Your task to perform on an android device: Clear the cart on amazon.com. Add "usb-c" to the cart on amazon.com, then select checkout. Image 0: 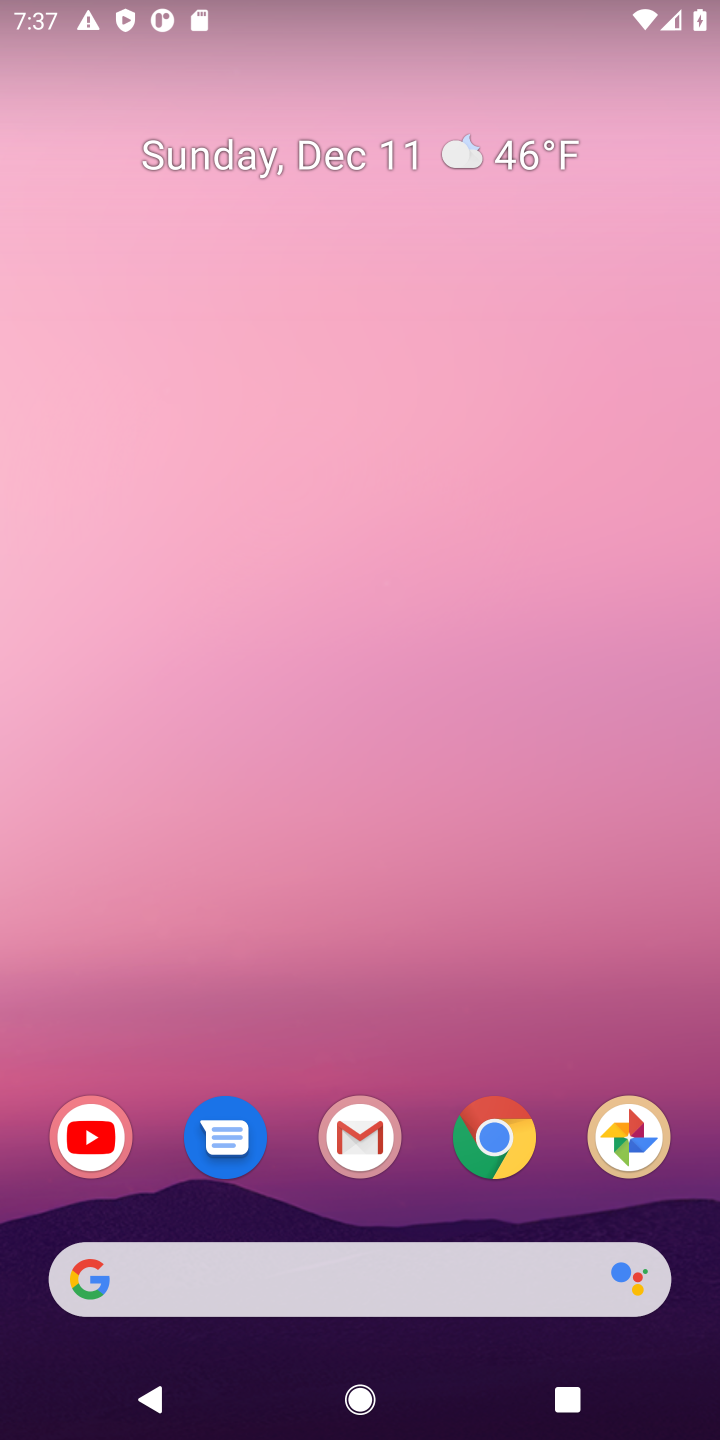
Step 0: click (494, 1135)
Your task to perform on an android device: Clear the cart on amazon.com. Add "usb-c" to the cart on amazon.com, then select checkout. Image 1: 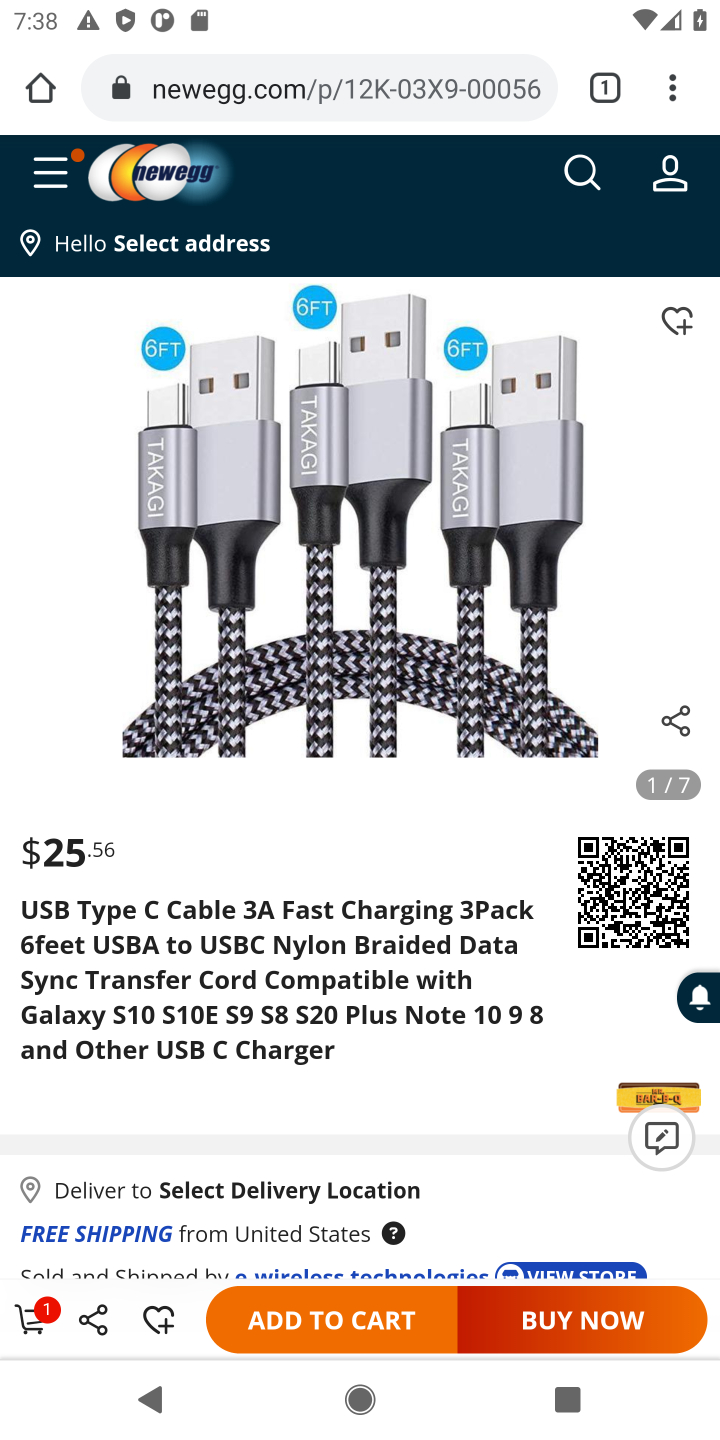
Step 1: click (366, 88)
Your task to perform on an android device: Clear the cart on amazon.com. Add "usb-c" to the cart on amazon.com, then select checkout. Image 2: 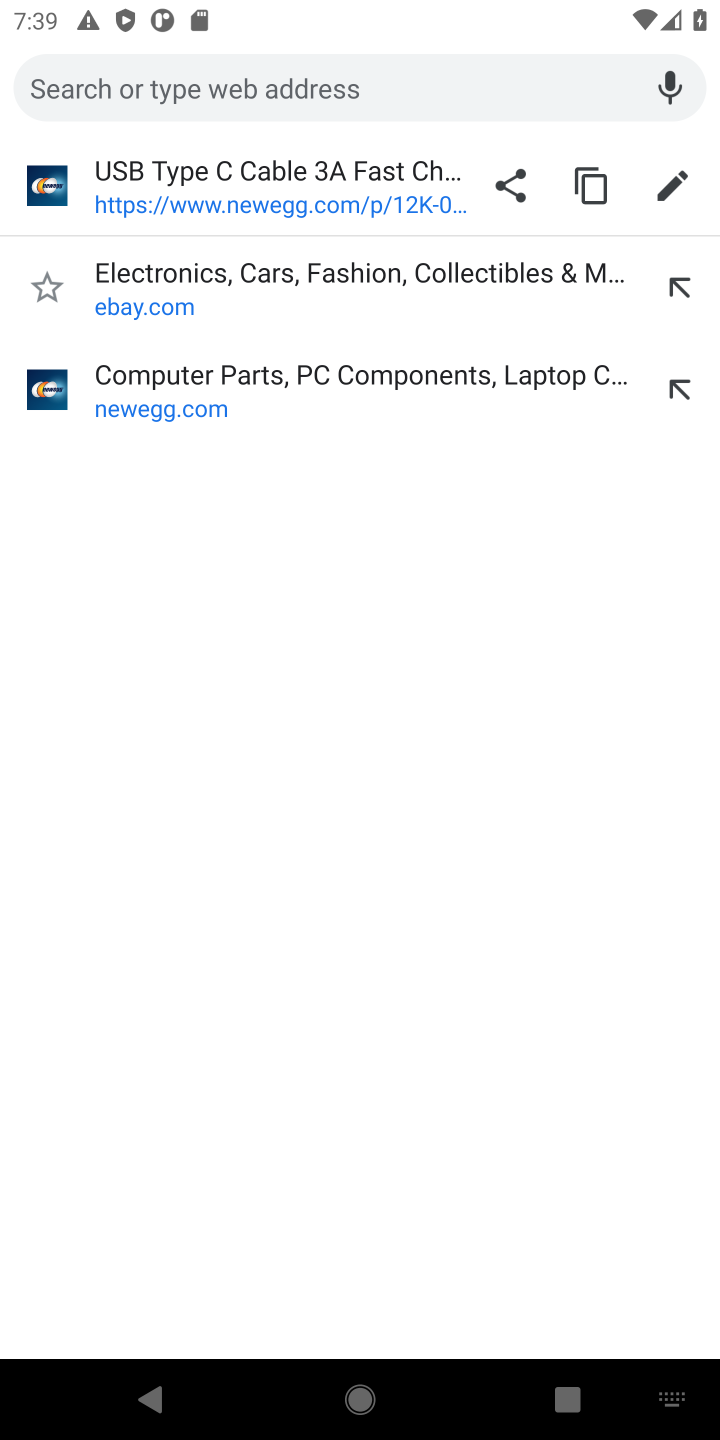
Step 2: type "amazon"
Your task to perform on an android device: Clear the cart on amazon.com. Add "usb-c" to the cart on amazon.com, then select checkout. Image 3: 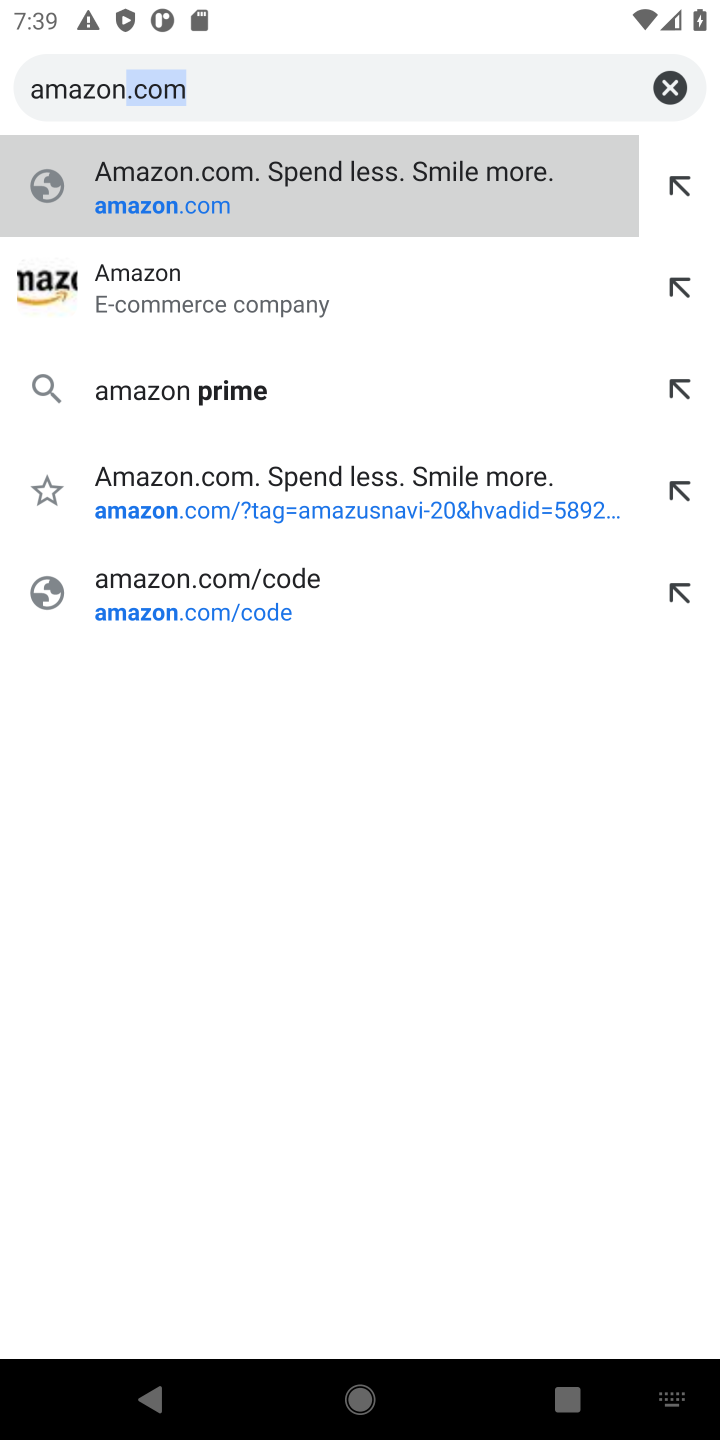
Step 3: click (161, 218)
Your task to perform on an android device: Clear the cart on amazon.com. Add "usb-c" to the cart on amazon.com, then select checkout. Image 4: 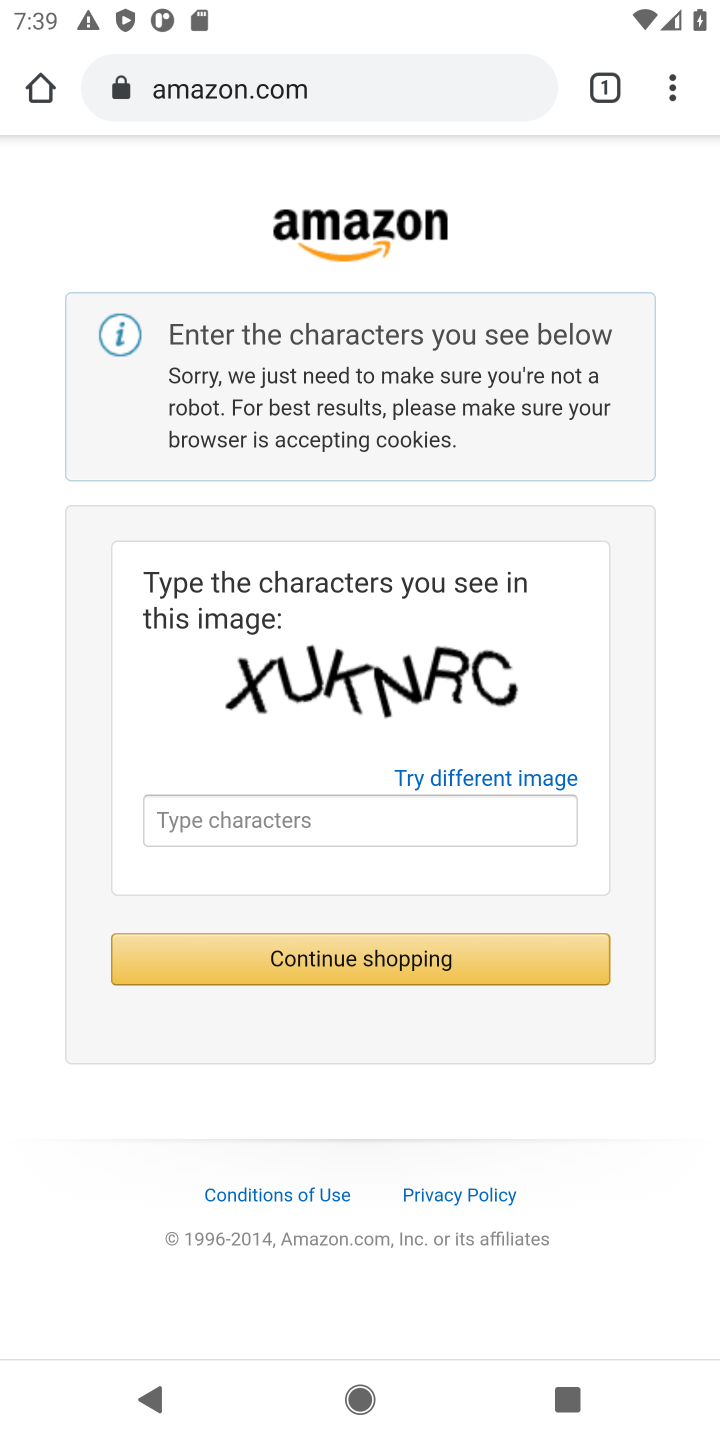
Step 4: click (362, 810)
Your task to perform on an android device: Clear the cart on amazon.com. Add "usb-c" to the cart on amazon.com, then select checkout. Image 5: 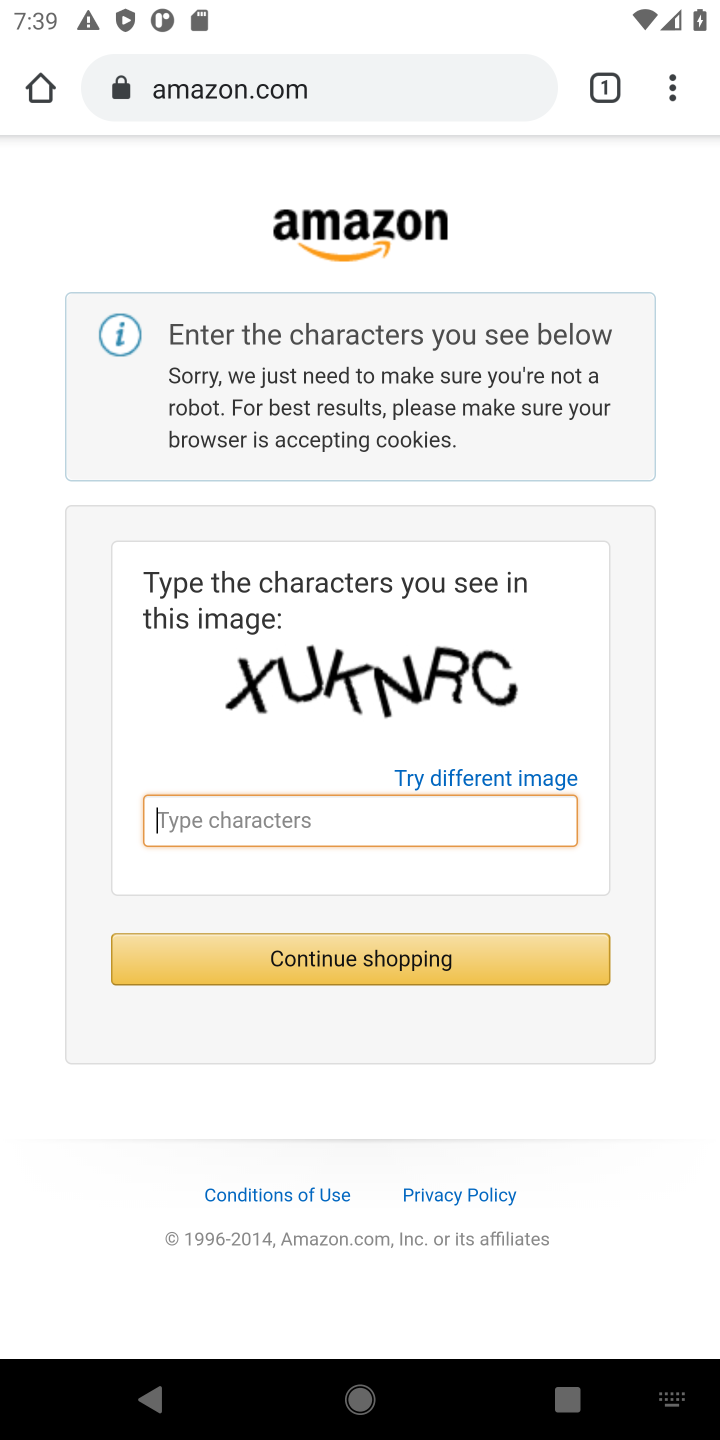
Step 5: type "XUKNRC"
Your task to perform on an android device: Clear the cart on amazon.com. Add "usb-c" to the cart on amazon.com, then select checkout. Image 6: 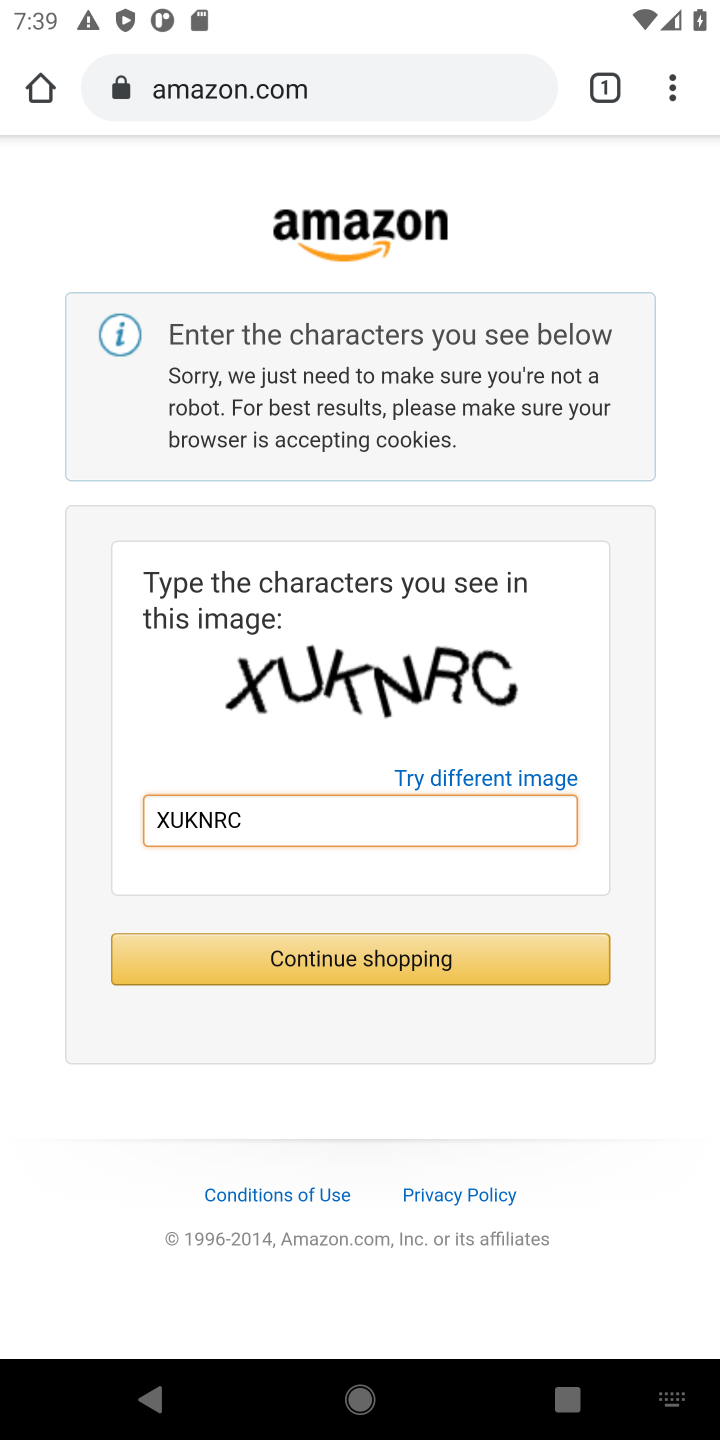
Step 6: click (352, 962)
Your task to perform on an android device: Clear the cart on amazon.com. Add "usb-c" to the cart on amazon.com, then select checkout. Image 7: 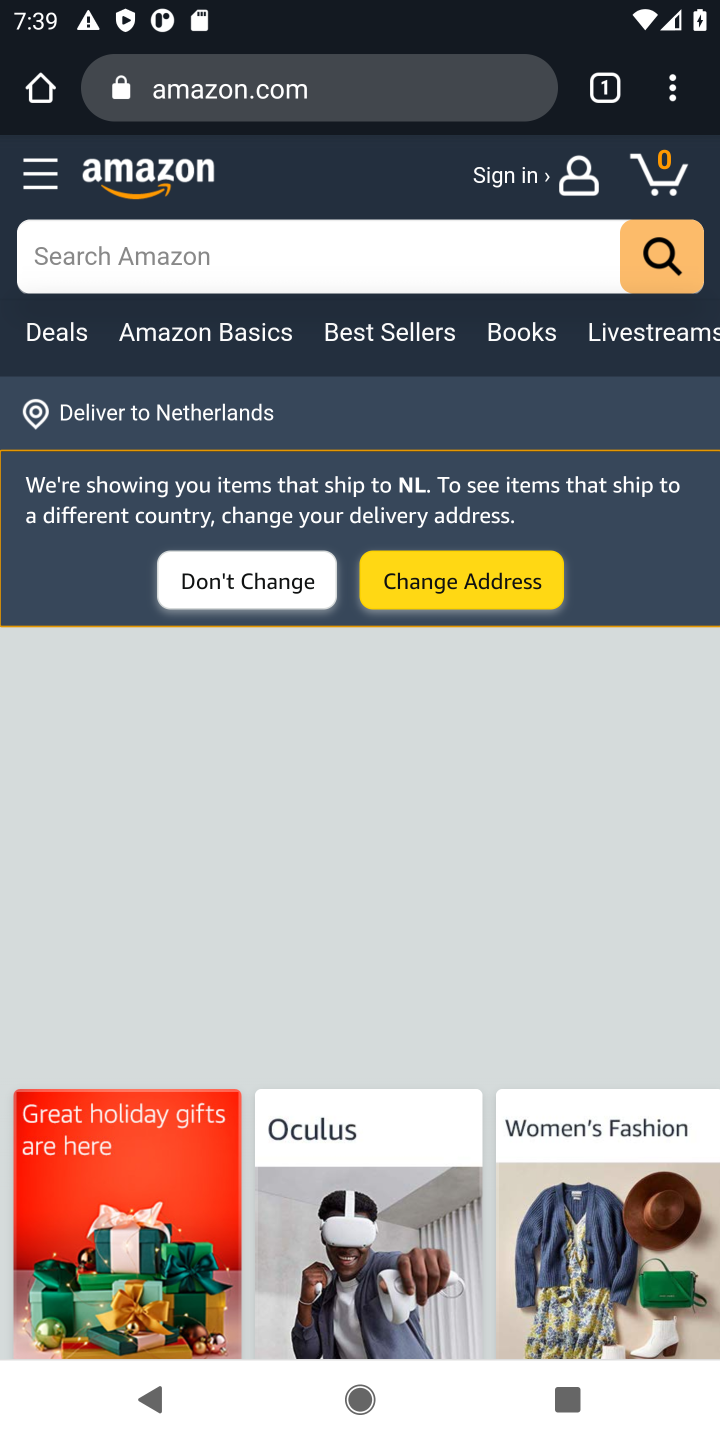
Step 7: click (382, 243)
Your task to perform on an android device: Clear the cart on amazon.com. Add "usb-c" to the cart on amazon.com, then select checkout. Image 8: 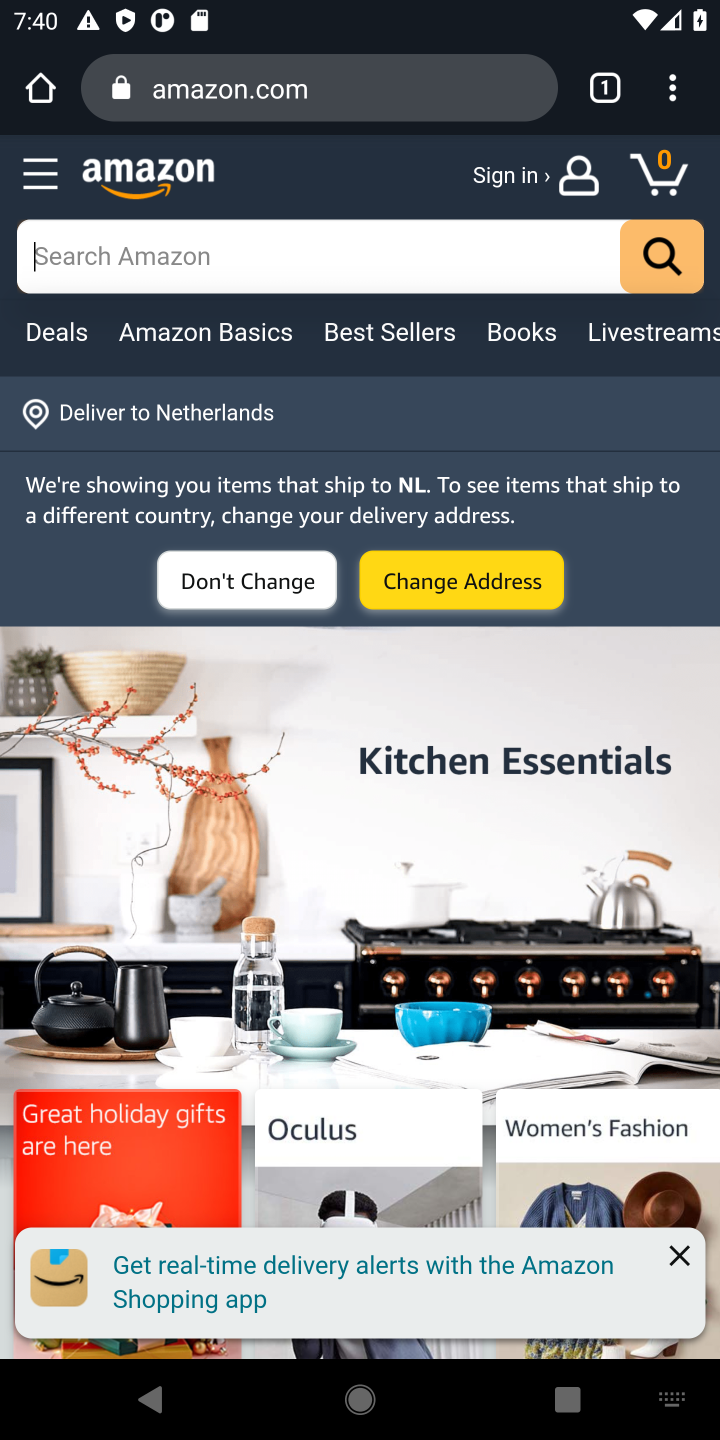
Step 8: type "USB-C"
Your task to perform on an android device: Clear the cart on amazon.com. Add "usb-c" to the cart on amazon.com, then select checkout. Image 9: 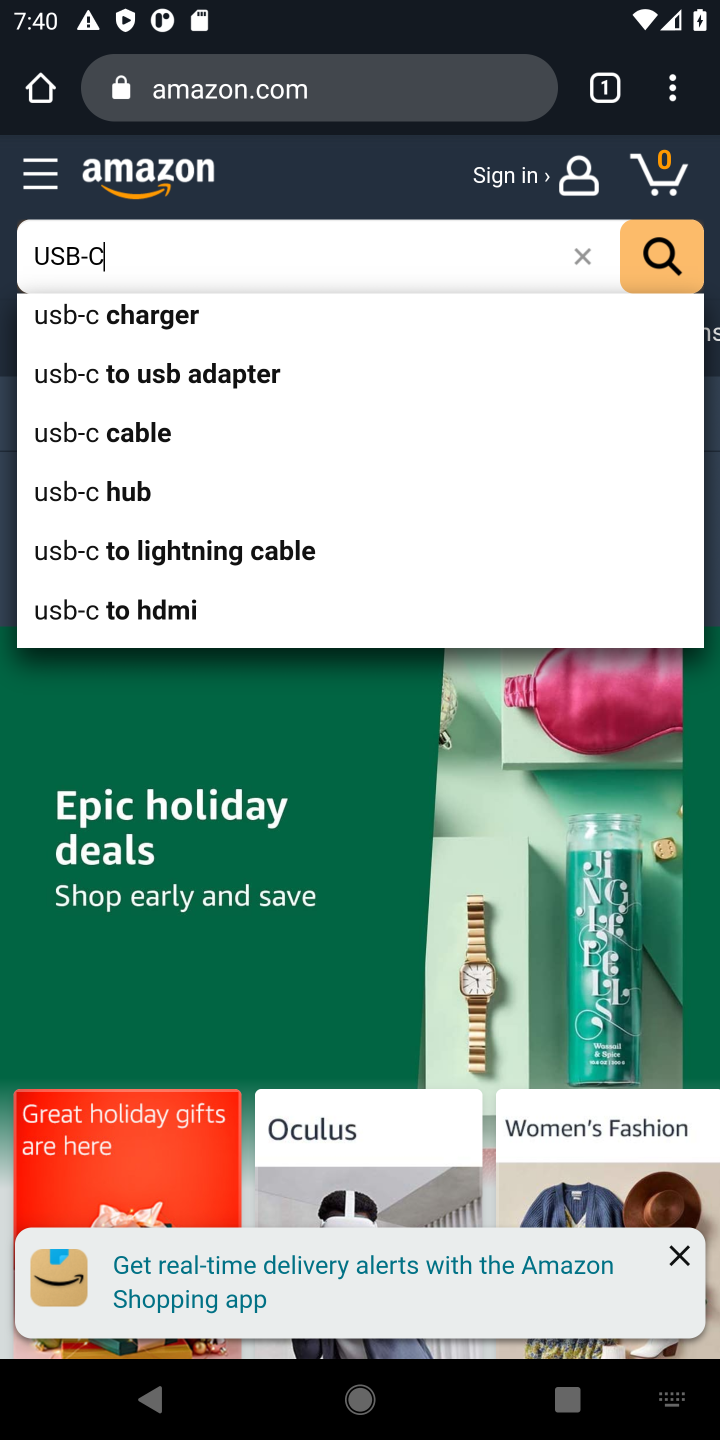
Step 9: click (152, 314)
Your task to perform on an android device: Clear the cart on amazon.com. Add "usb-c" to the cart on amazon.com, then select checkout. Image 10: 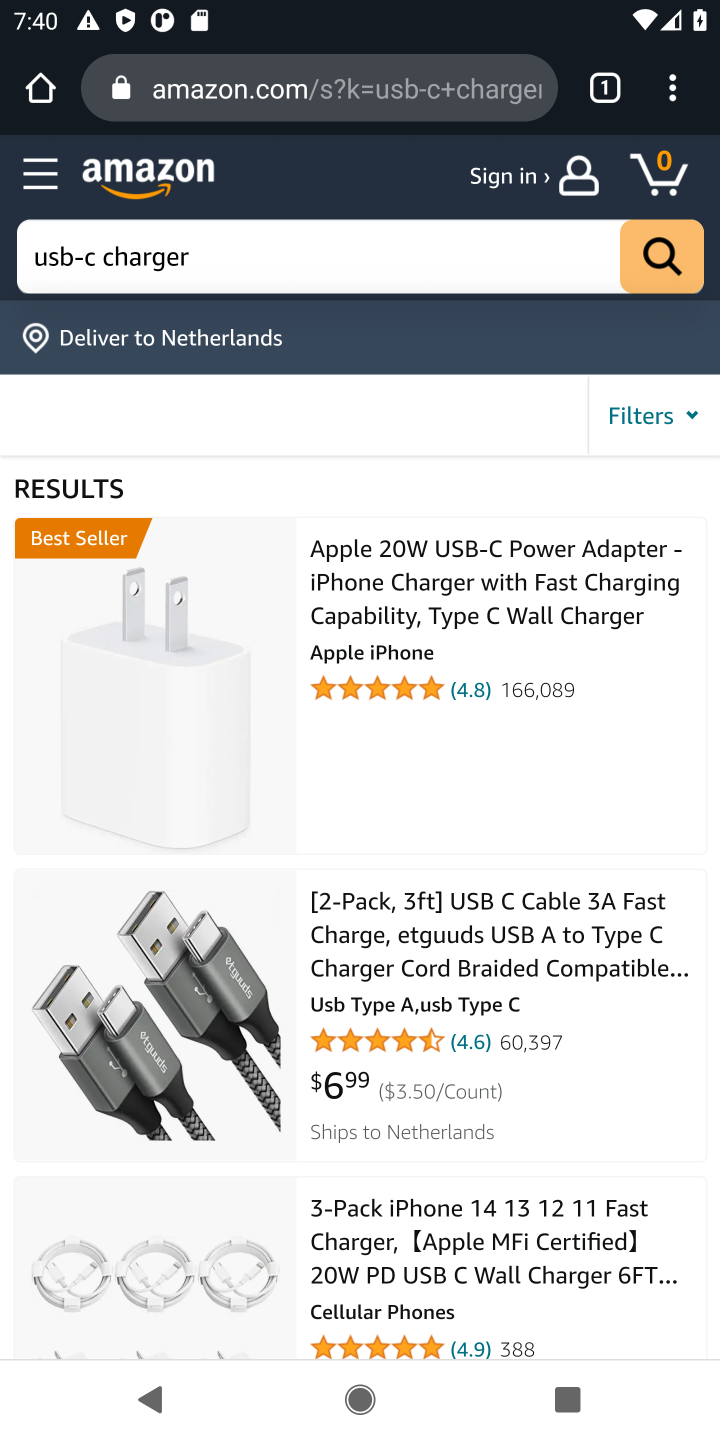
Step 10: click (573, 595)
Your task to perform on an android device: Clear the cart on amazon.com. Add "usb-c" to the cart on amazon.com, then select checkout. Image 11: 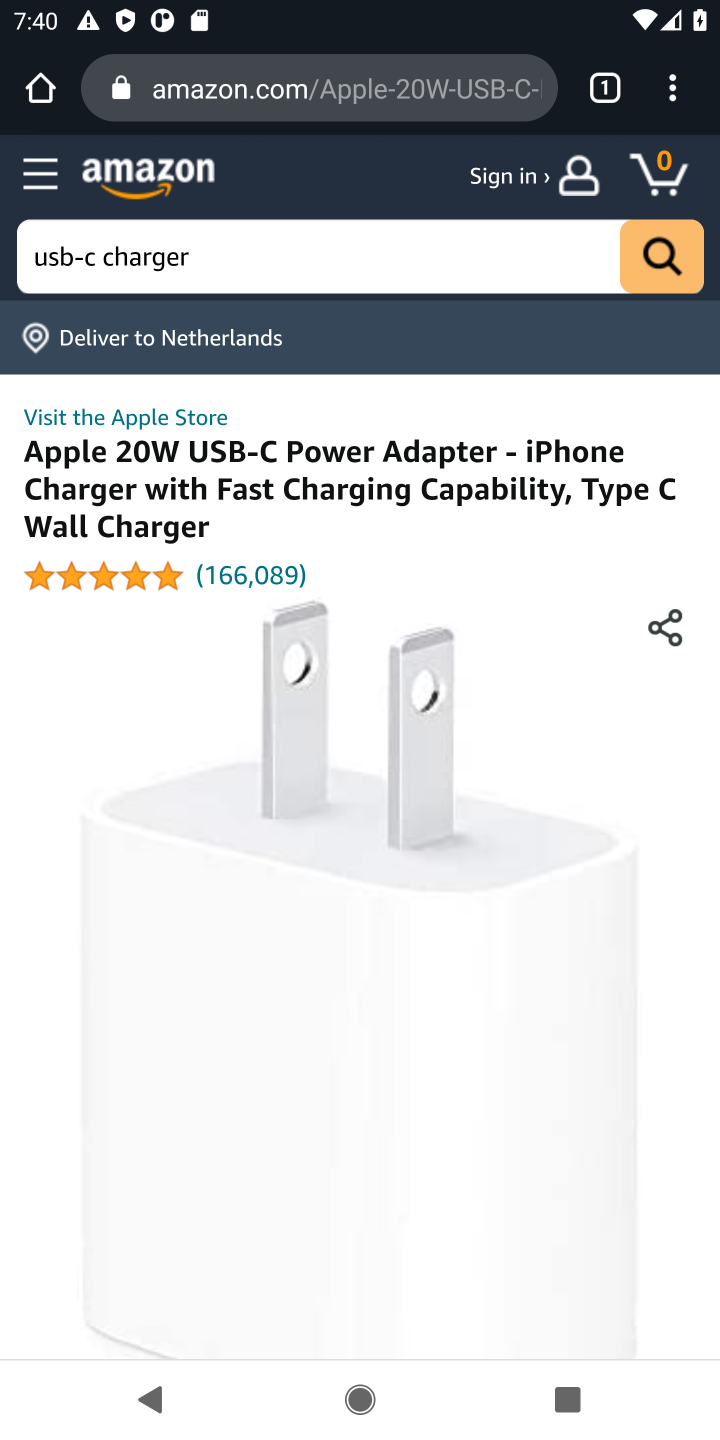
Step 11: drag from (430, 1170) to (529, 360)
Your task to perform on an android device: Clear the cart on amazon.com. Add "usb-c" to the cart on amazon.com, then select checkout. Image 12: 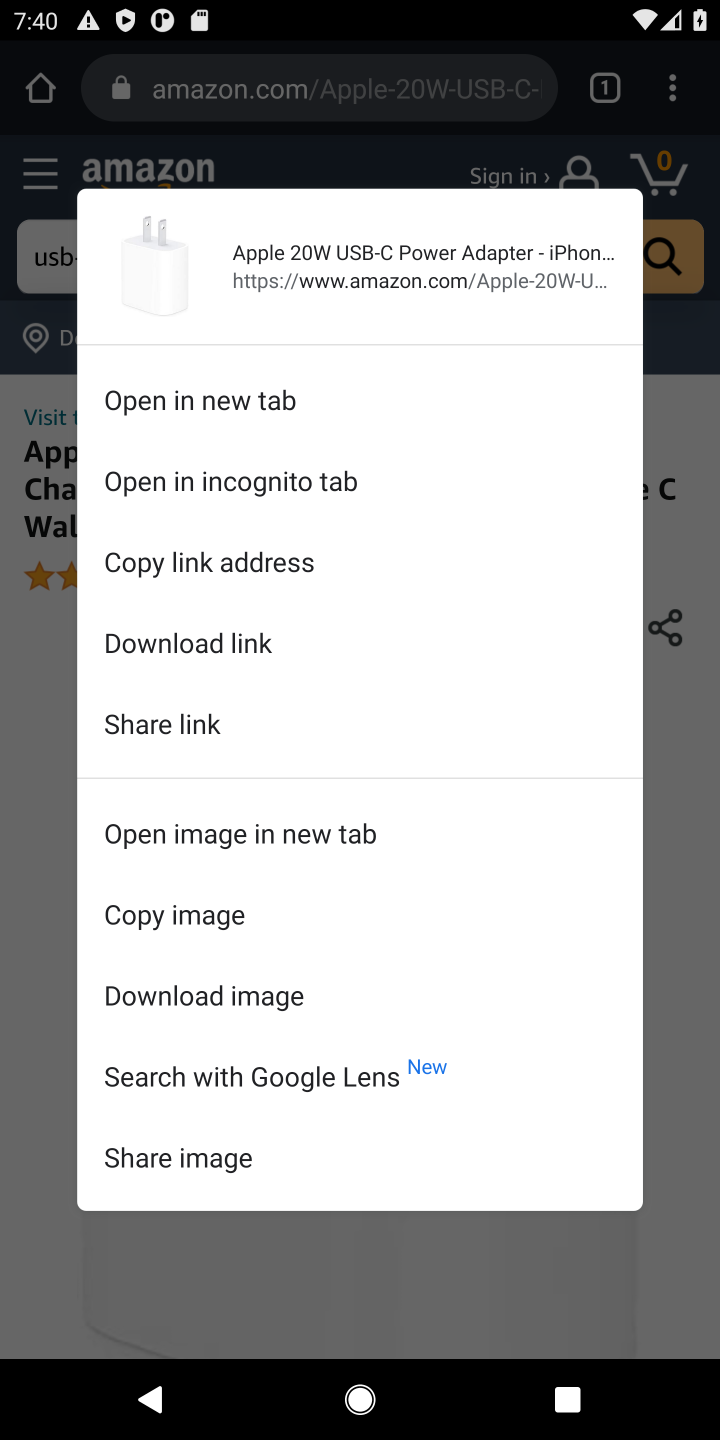
Step 12: click (693, 847)
Your task to perform on an android device: Clear the cart on amazon.com. Add "usb-c" to the cart on amazon.com, then select checkout. Image 13: 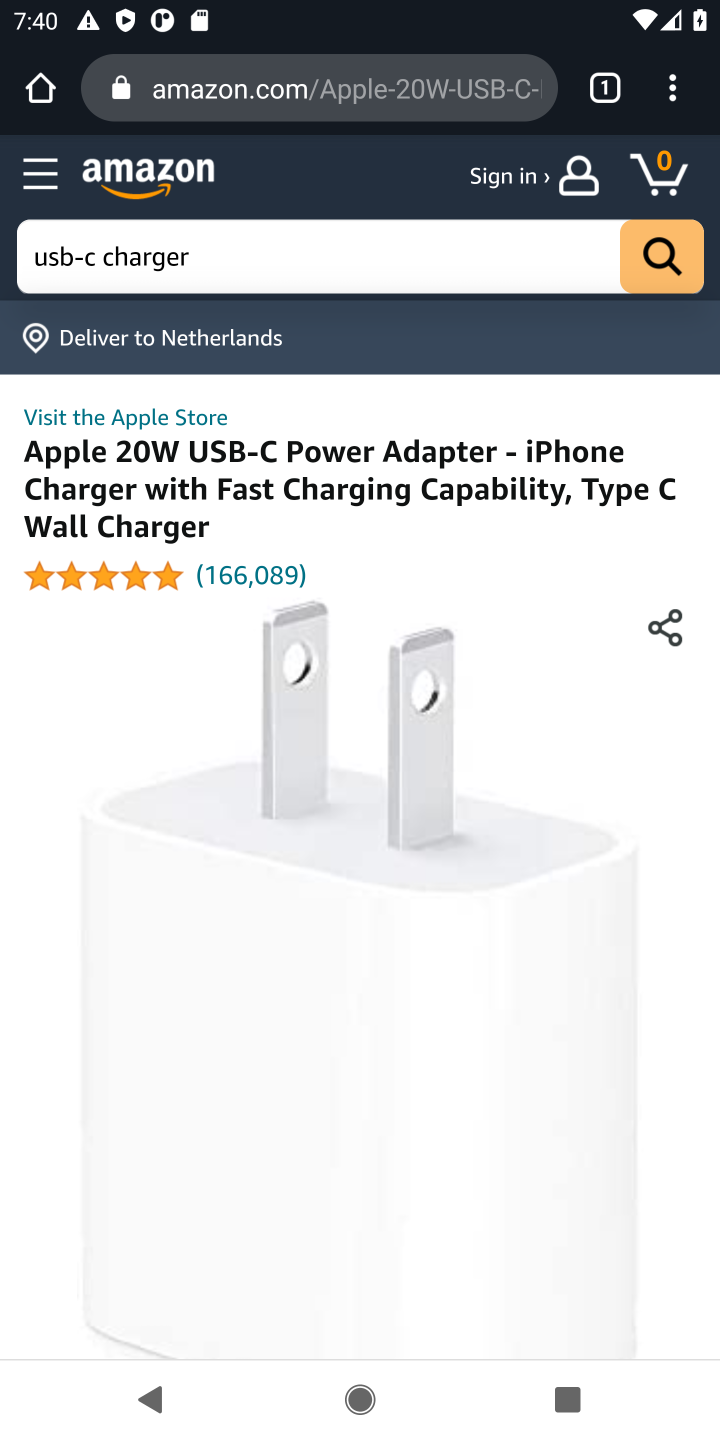
Step 13: drag from (421, 1183) to (457, 126)
Your task to perform on an android device: Clear the cart on amazon.com. Add "usb-c" to the cart on amazon.com, then select checkout. Image 14: 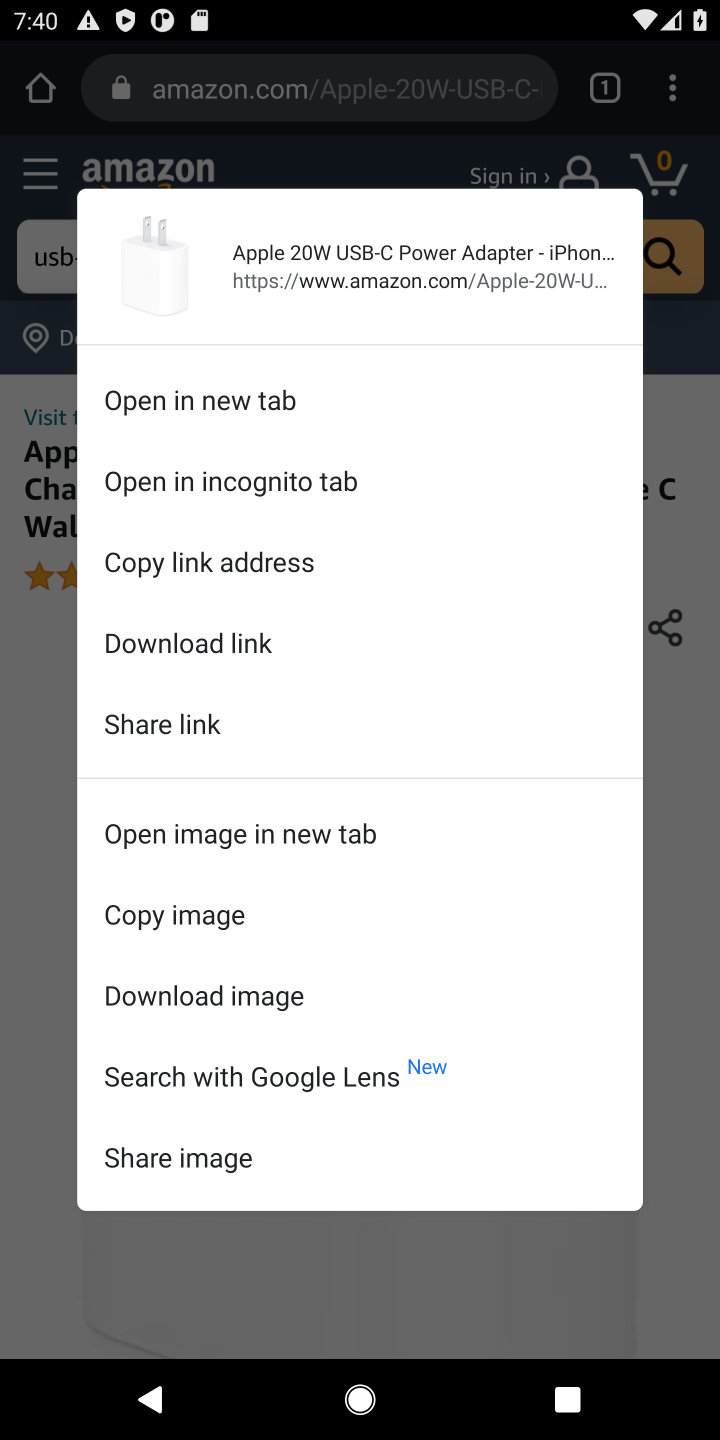
Step 14: click (696, 1084)
Your task to perform on an android device: Clear the cart on amazon.com. Add "usb-c" to the cart on amazon.com, then select checkout. Image 15: 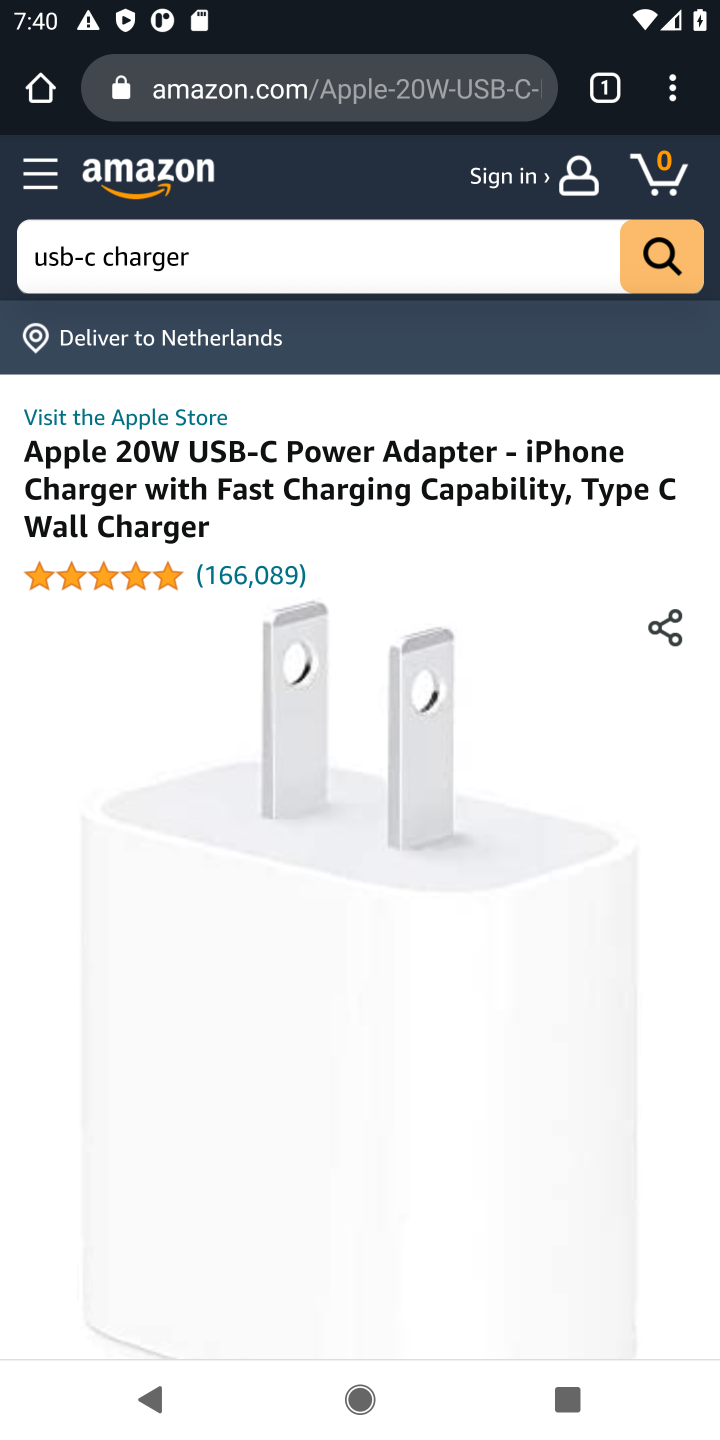
Step 15: task complete